Your task to perform on an android device: What's on my calendar tomorrow? Image 0: 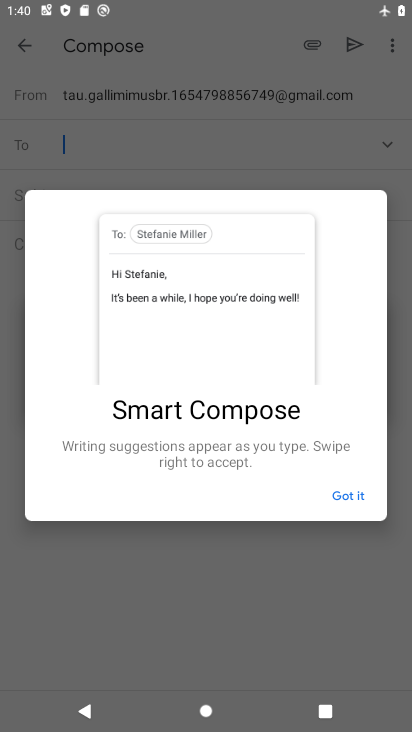
Step 0: press home button
Your task to perform on an android device: What's on my calendar tomorrow? Image 1: 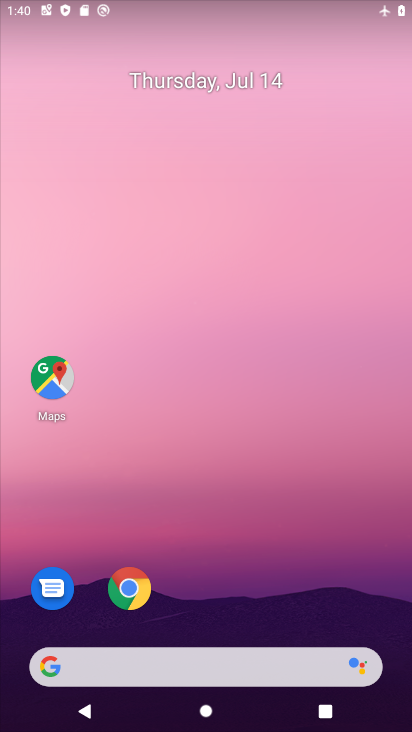
Step 1: drag from (258, 611) to (258, 118)
Your task to perform on an android device: What's on my calendar tomorrow? Image 2: 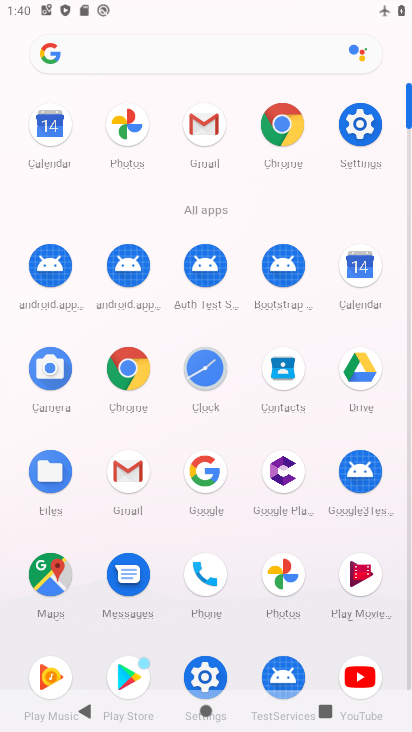
Step 2: click (362, 274)
Your task to perform on an android device: What's on my calendar tomorrow? Image 3: 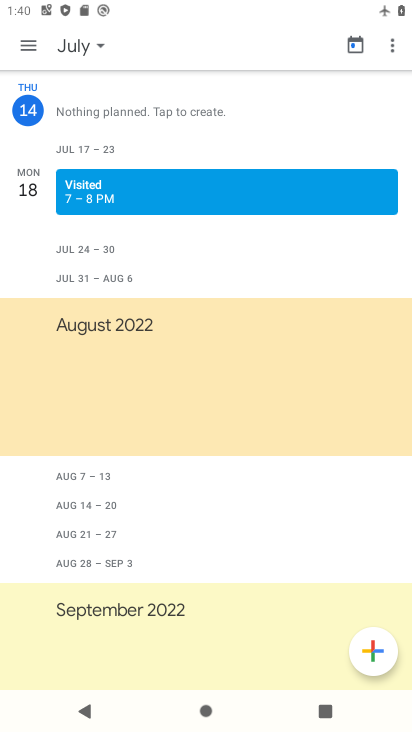
Step 3: click (87, 45)
Your task to perform on an android device: What's on my calendar tomorrow? Image 4: 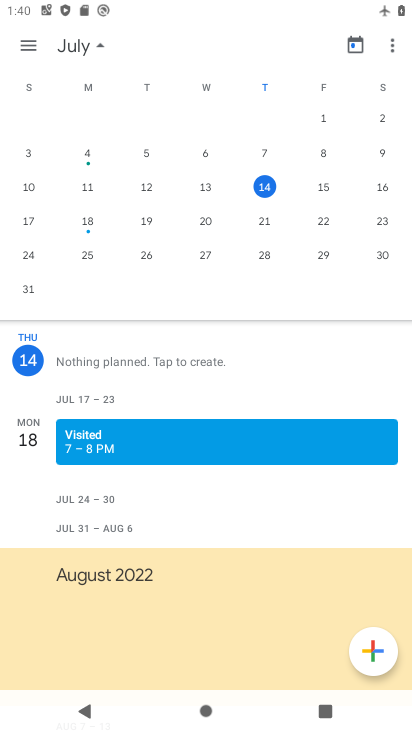
Step 4: click (315, 180)
Your task to perform on an android device: What's on my calendar tomorrow? Image 5: 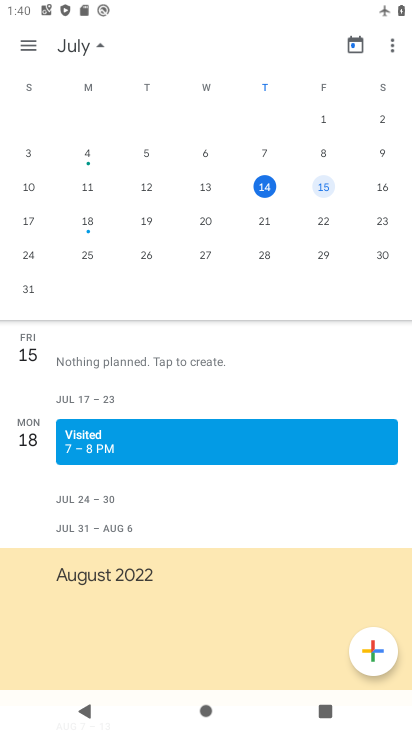
Step 5: task complete